Your task to perform on an android device: manage bookmarks in the chrome app Image 0: 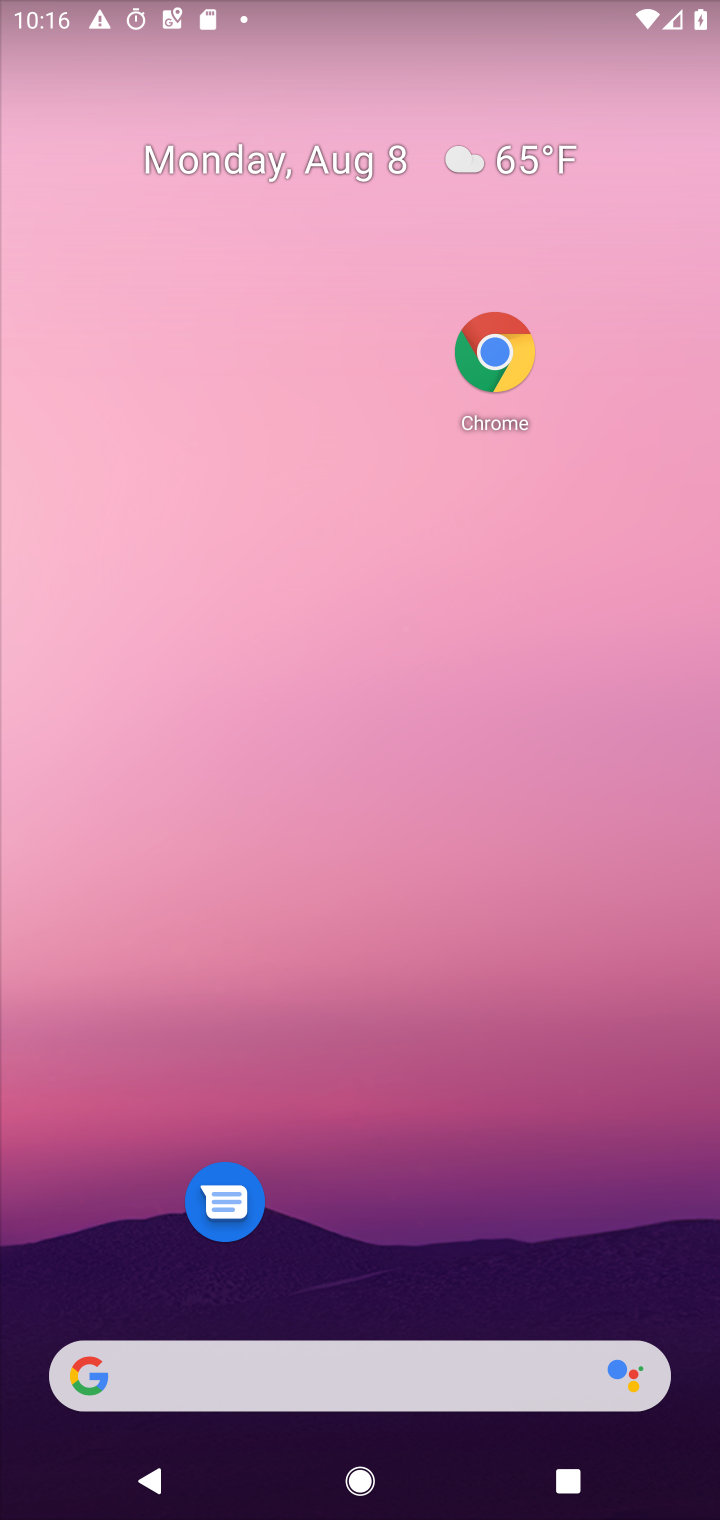
Step 0: drag from (493, 1114) to (690, 53)
Your task to perform on an android device: manage bookmarks in the chrome app Image 1: 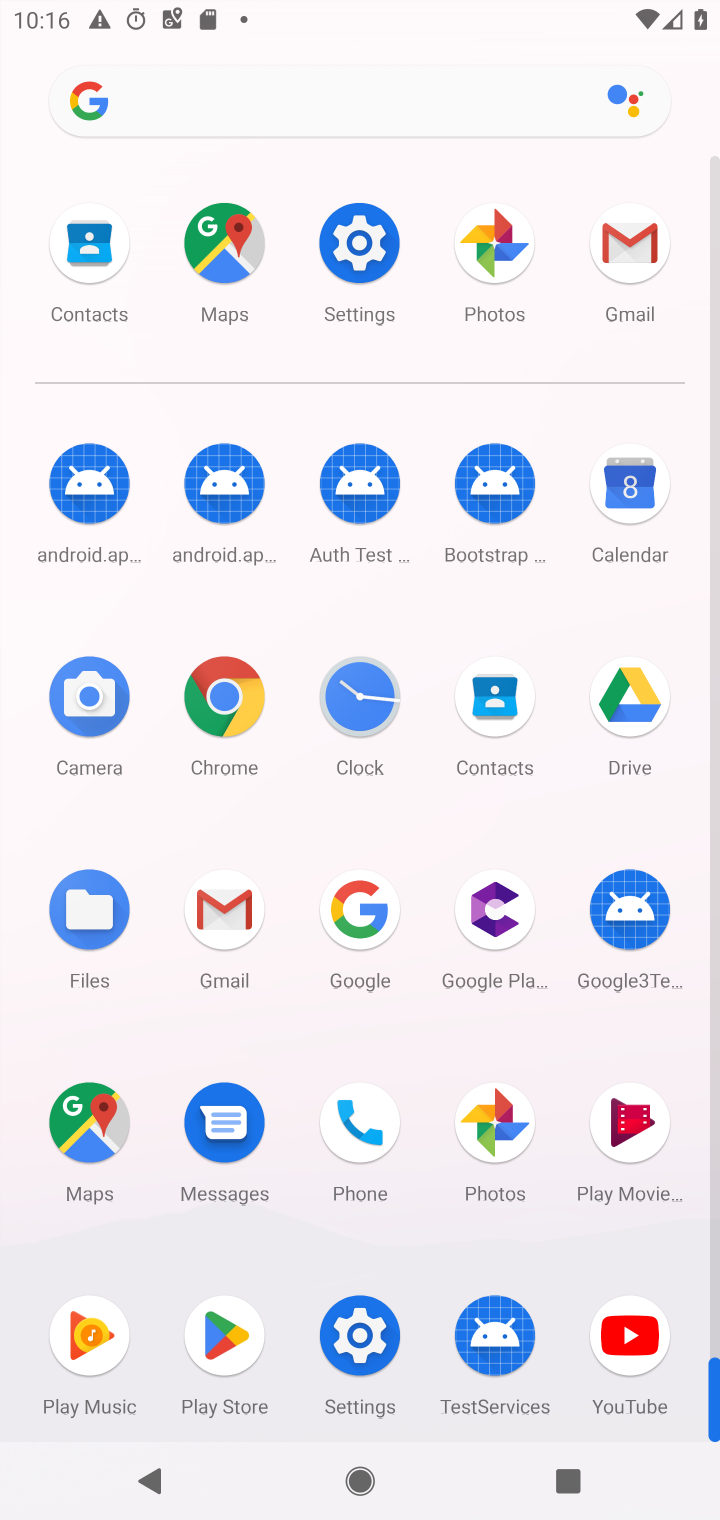
Step 1: click (235, 756)
Your task to perform on an android device: manage bookmarks in the chrome app Image 2: 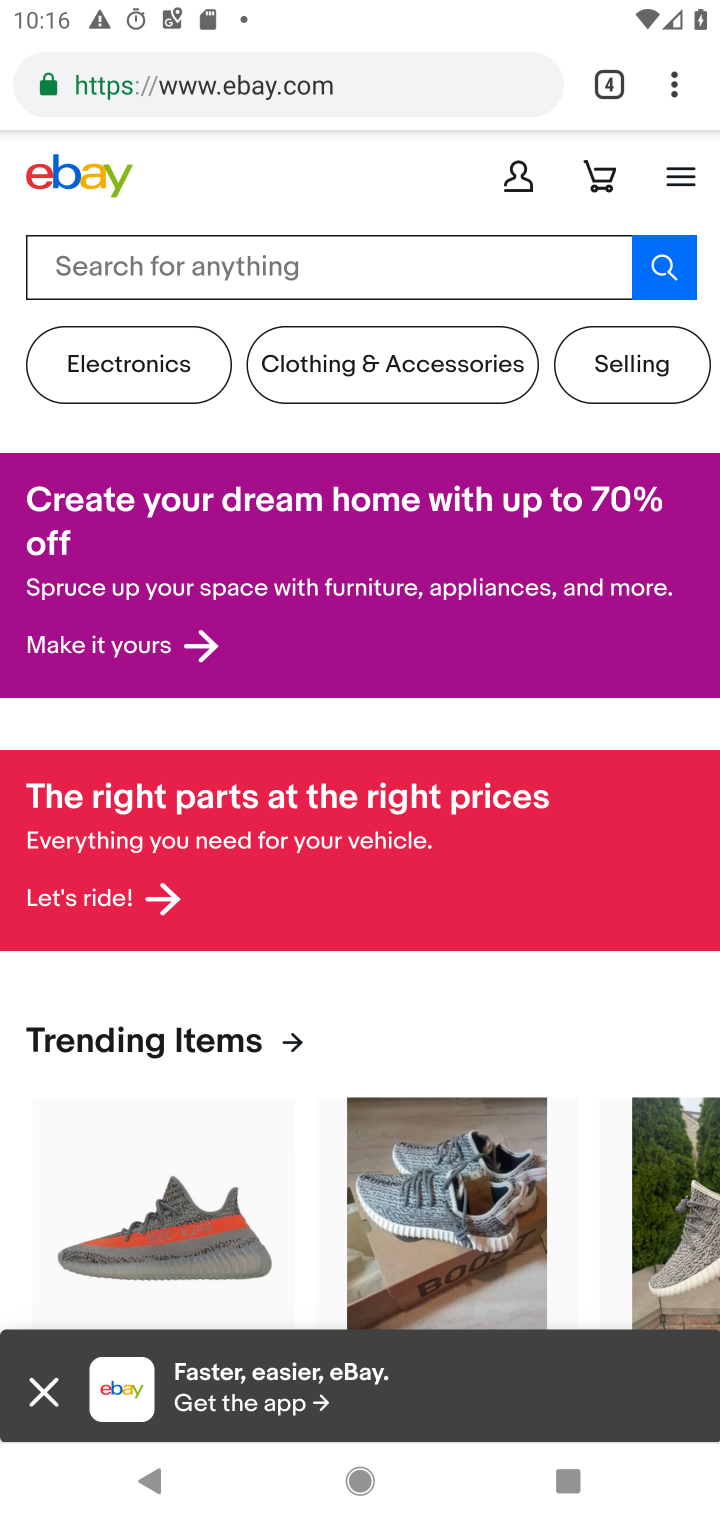
Step 2: click (681, 99)
Your task to perform on an android device: manage bookmarks in the chrome app Image 3: 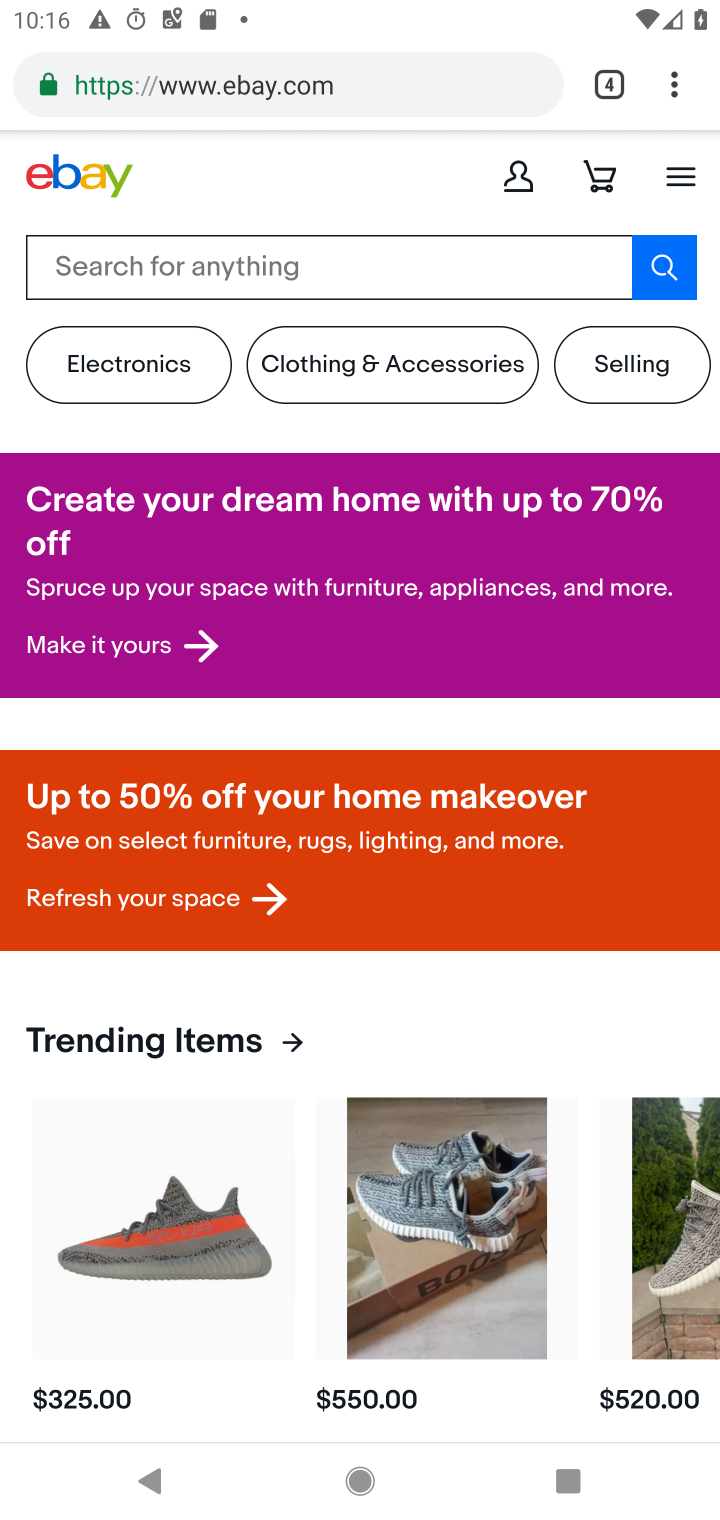
Step 3: click (667, 91)
Your task to perform on an android device: manage bookmarks in the chrome app Image 4: 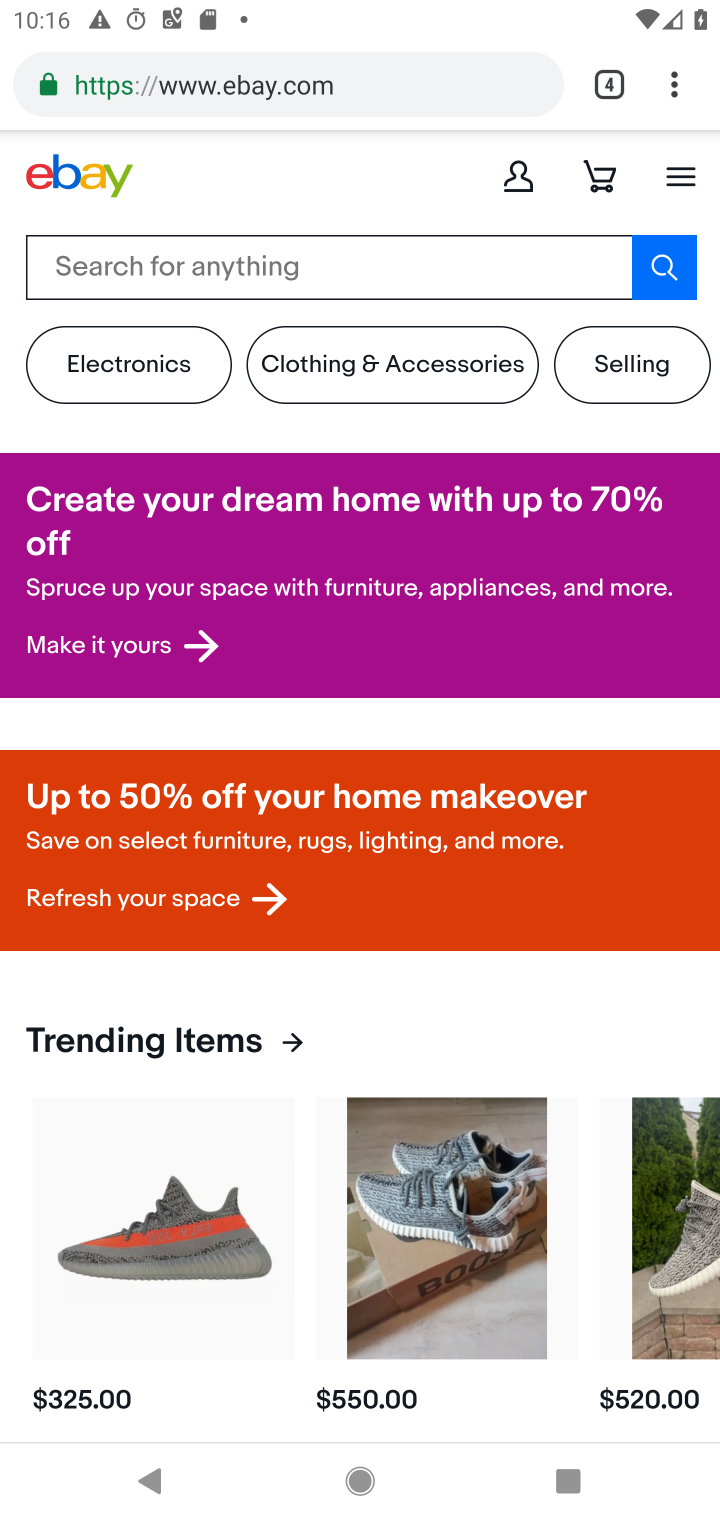
Step 4: click (685, 93)
Your task to perform on an android device: manage bookmarks in the chrome app Image 5: 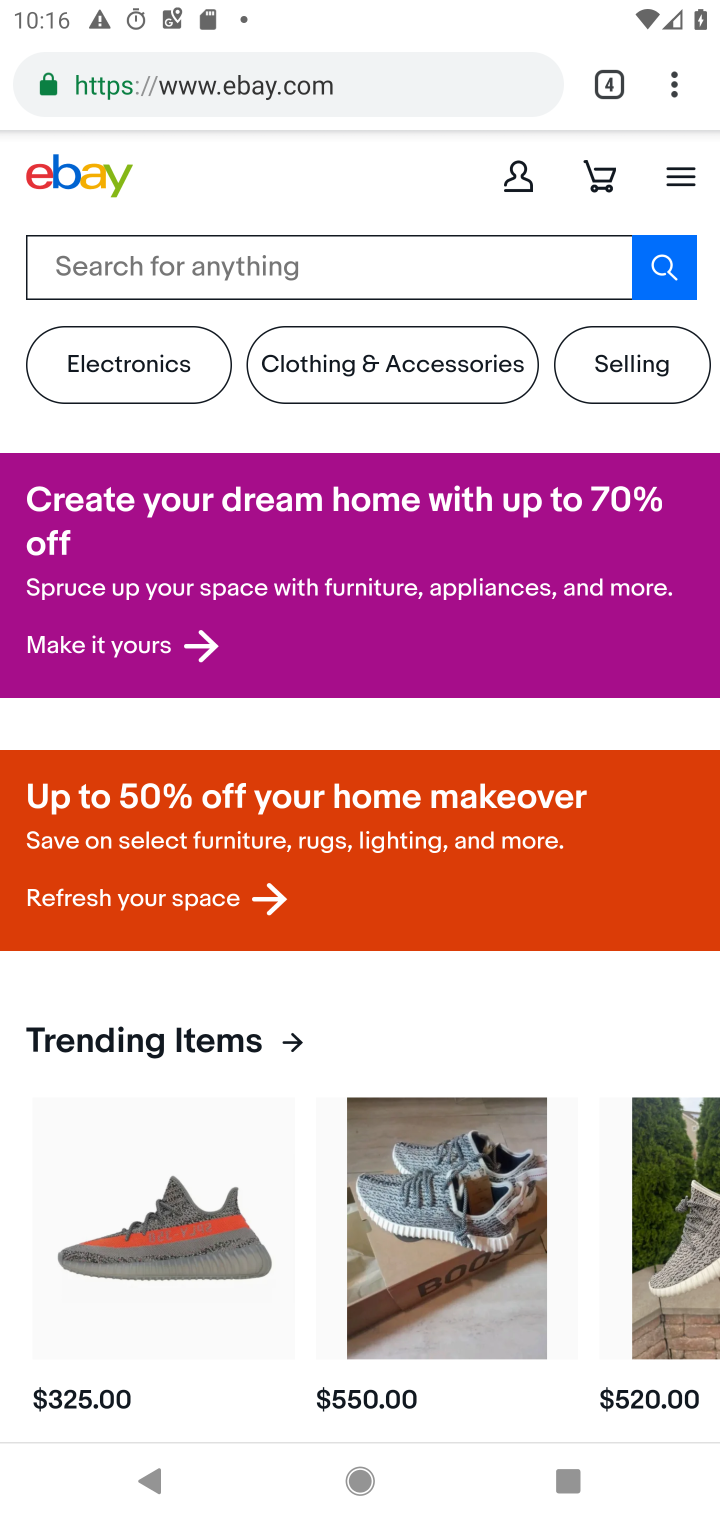
Step 5: click (679, 102)
Your task to perform on an android device: manage bookmarks in the chrome app Image 6: 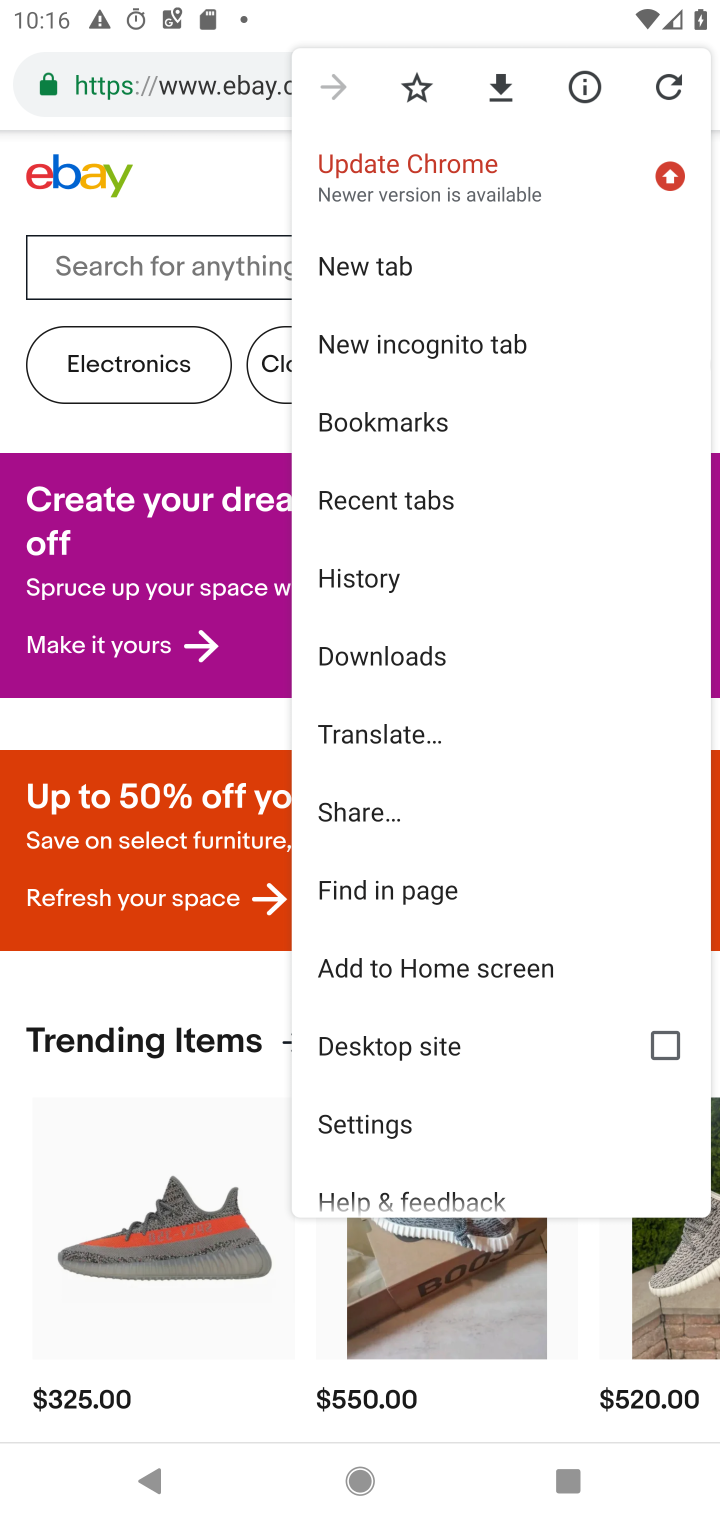
Step 6: click (372, 431)
Your task to perform on an android device: manage bookmarks in the chrome app Image 7: 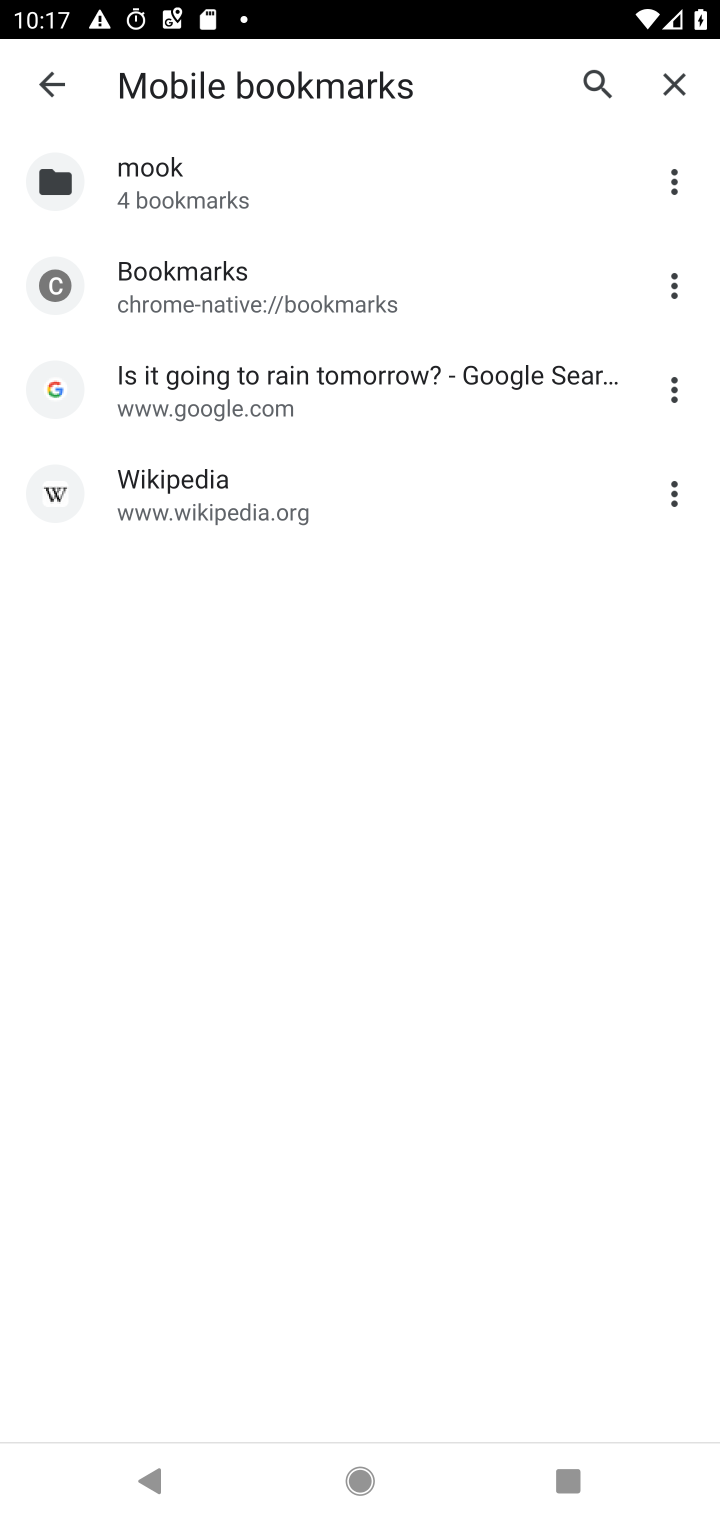
Step 7: task complete